Your task to perform on an android device: delete a single message in the gmail app Image 0: 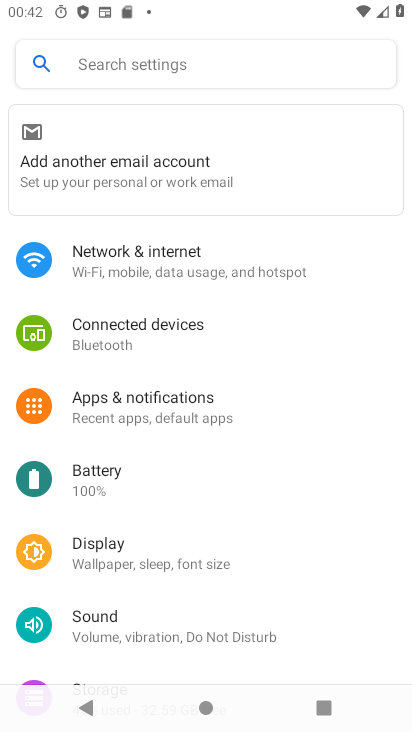
Step 0: press home button
Your task to perform on an android device: delete a single message in the gmail app Image 1: 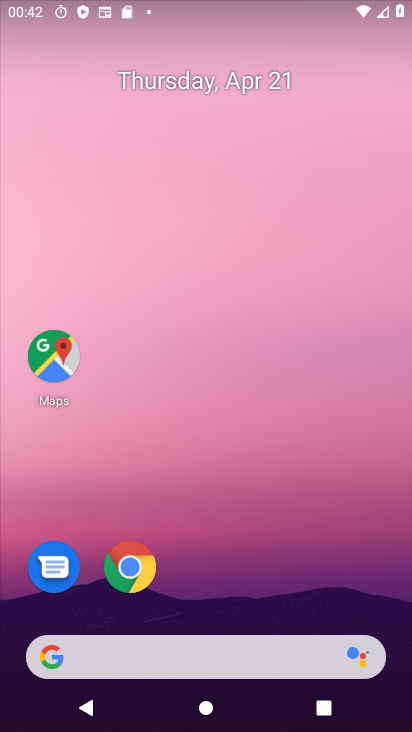
Step 1: drag from (209, 586) to (223, 236)
Your task to perform on an android device: delete a single message in the gmail app Image 2: 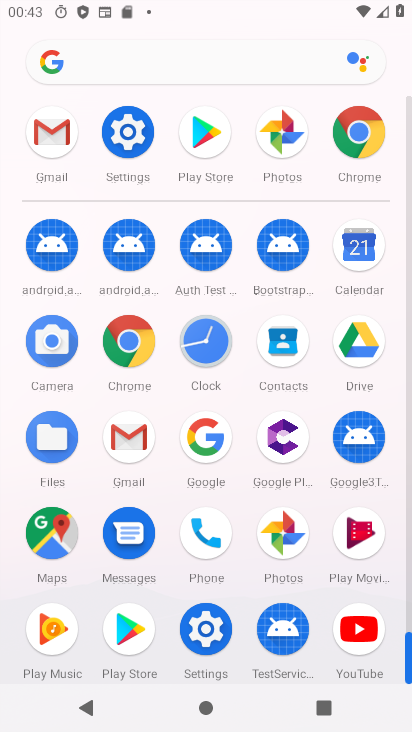
Step 2: click (50, 133)
Your task to perform on an android device: delete a single message in the gmail app Image 3: 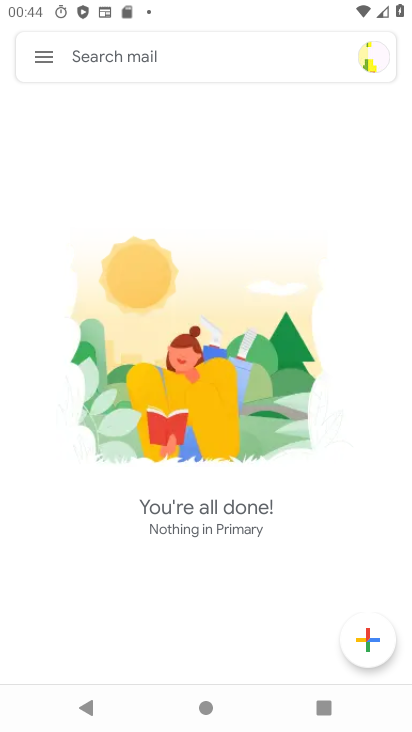
Step 3: click (48, 49)
Your task to perform on an android device: delete a single message in the gmail app Image 4: 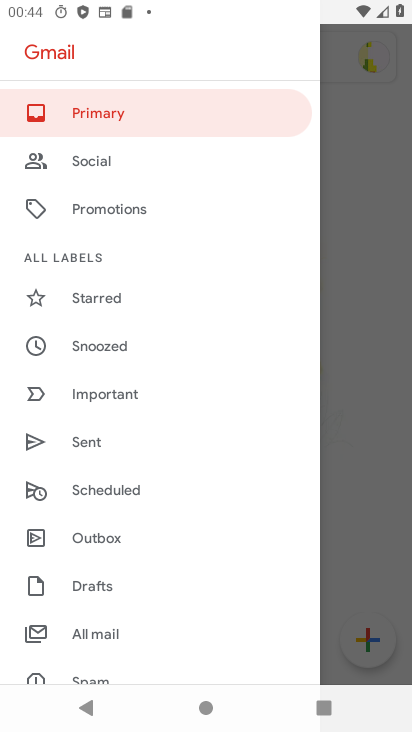
Step 4: click (98, 633)
Your task to perform on an android device: delete a single message in the gmail app Image 5: 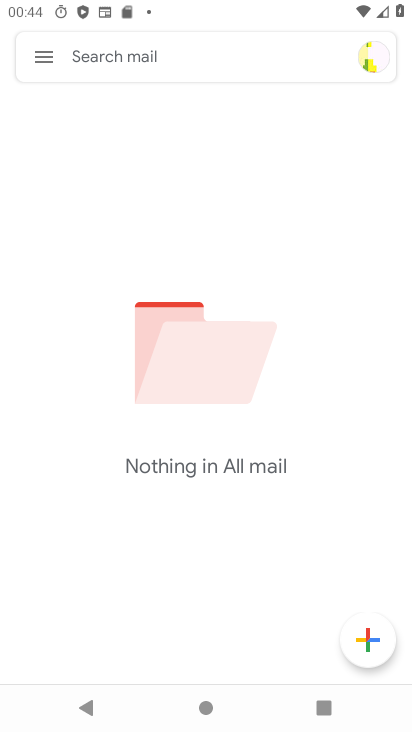
Step 5: task complete